Your task to perform on an android device: Go to sound settings Image 0: 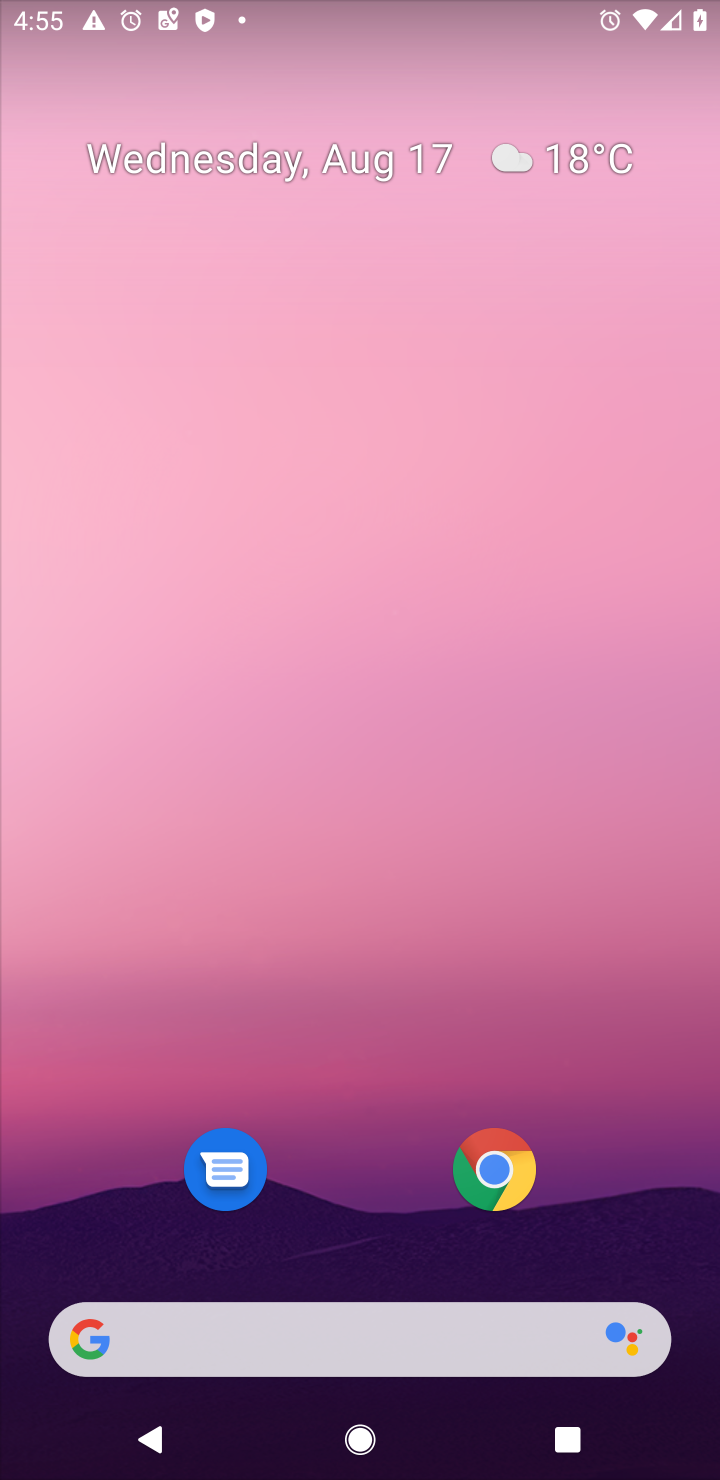
Step 0: press home button
Your task to perform on an android device: Go to sound settings Image 1: 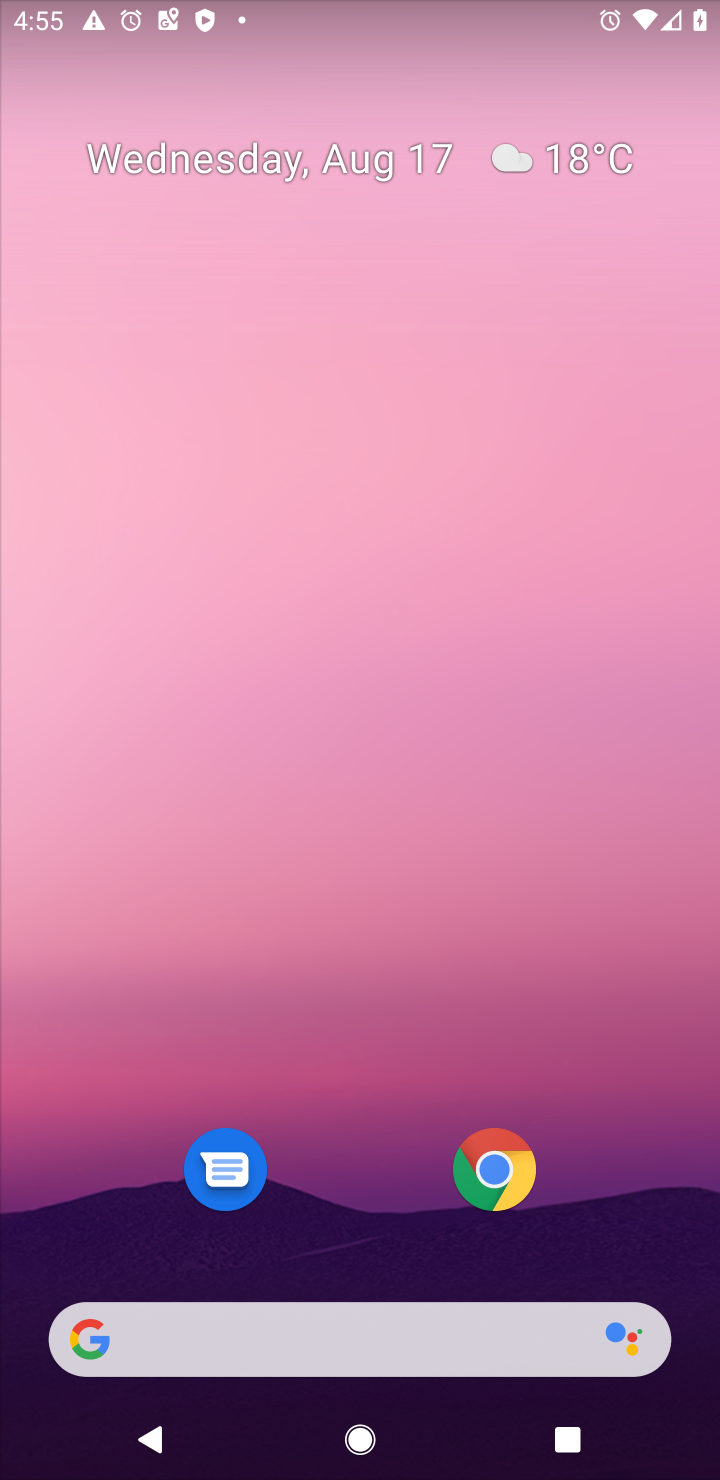
Step 1: drag from (393, 1209) to (510, 107)
Your task to perform on an android device: Go to sound settings Image 2: 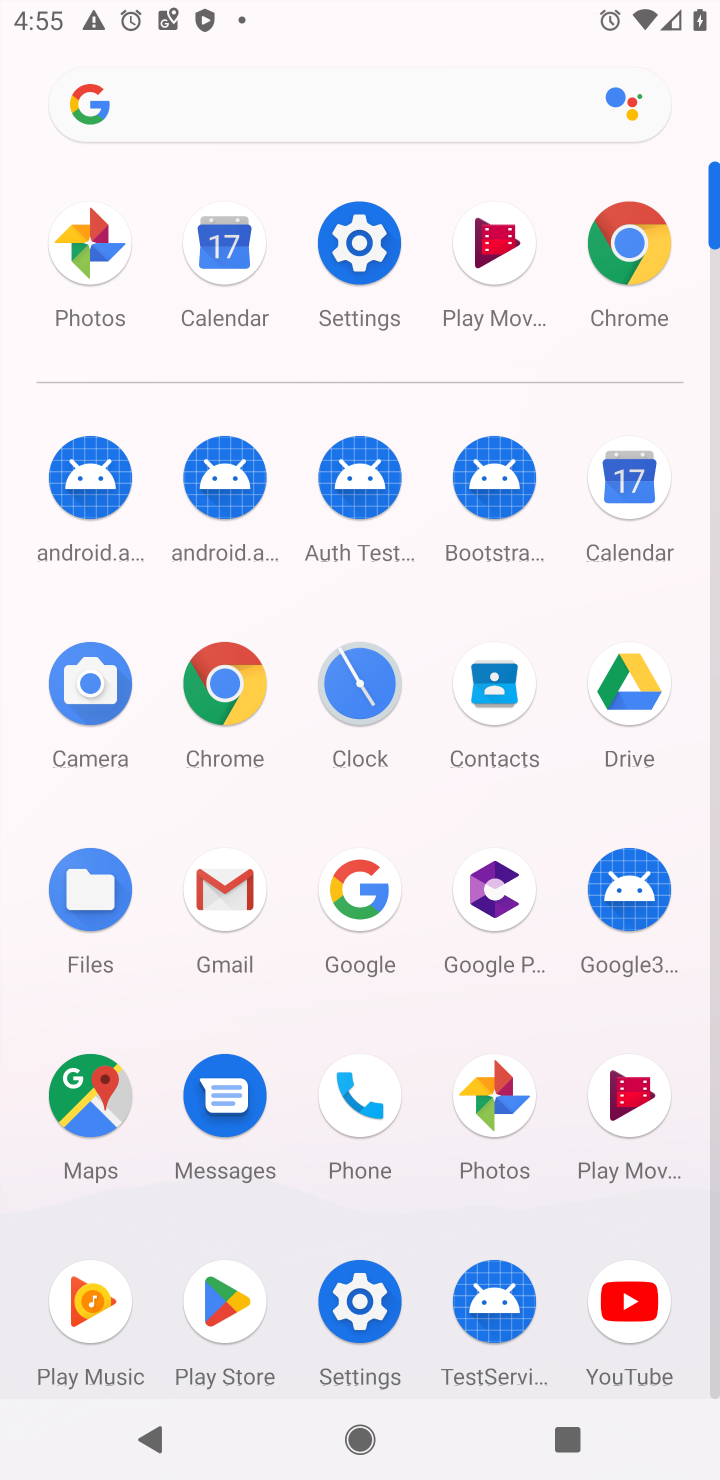
Step 2: click (373, 1297)
Your task to perform on an android device: Go to sound settings Image 3: 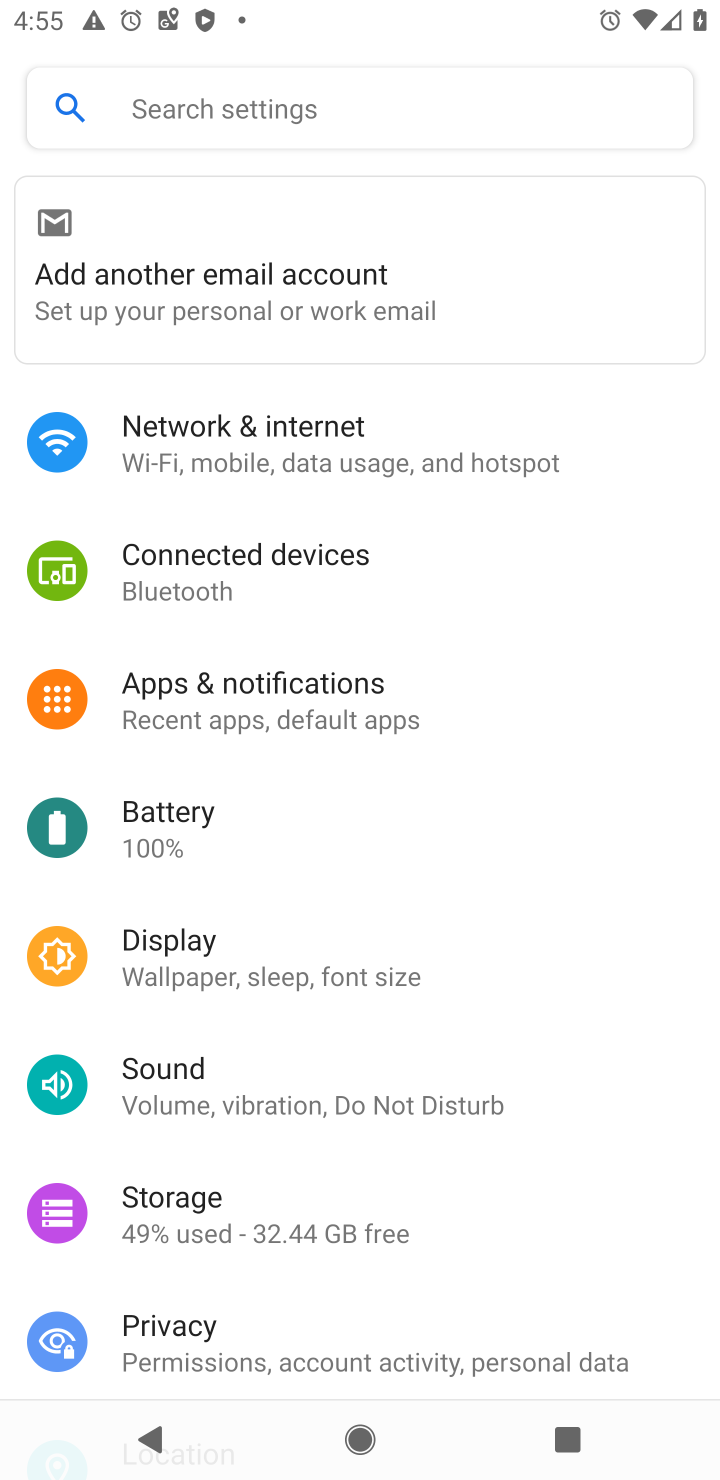
Step 3: click (187, 1075)
Your task to perform on an android device: Go to sound settings Image 4: 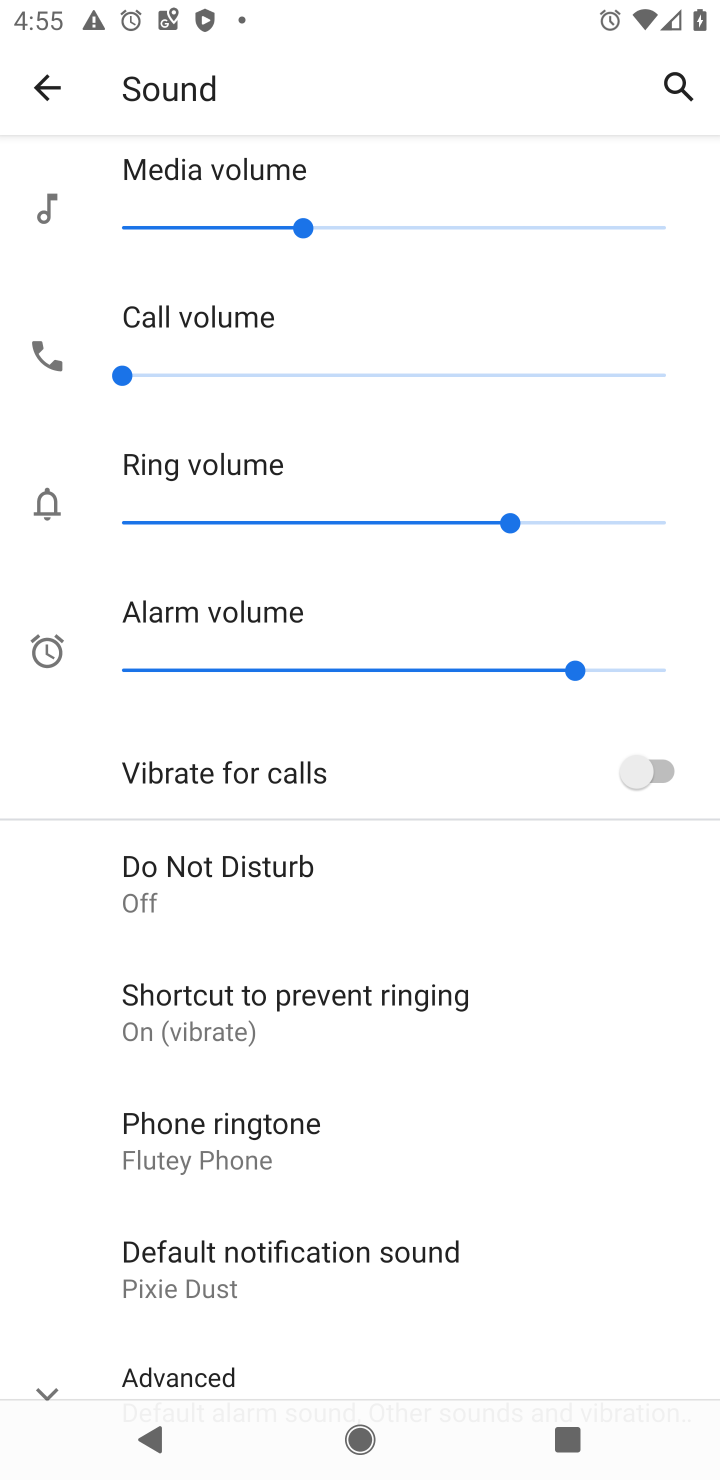
Step 4: task complete